Your task to perform on an android device: toggle airplane mode Image 0: 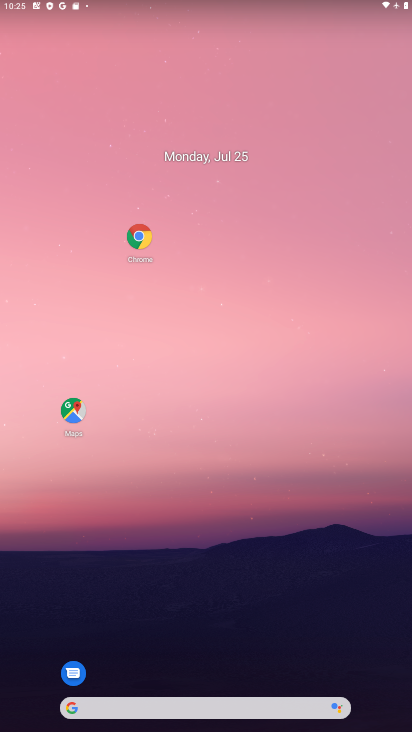
Step 0: drag from (270, 643) to (261, 85)
Your task to perform on an android device: toggle airplane mode Image 1: 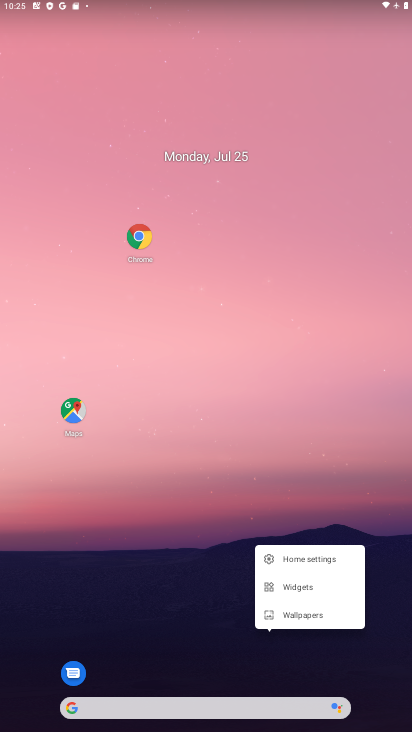
Step 1: click (220, 597)
Your task to perform on an android device: toggle airplane mode Image 2: 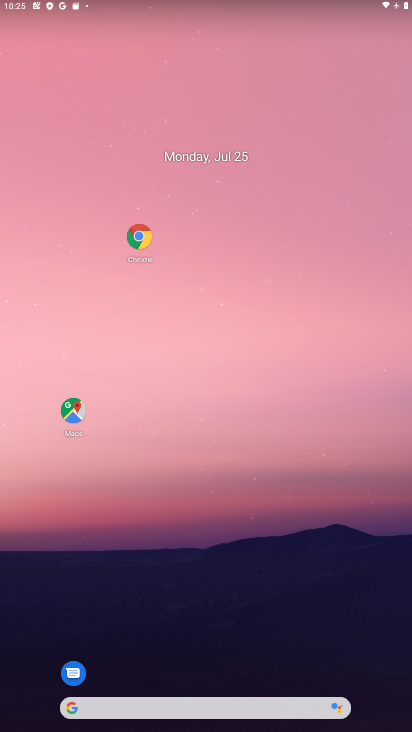
Step 2: drag from (222, 649) to (280, 45)
Your task to perform on an android device: toggle airplane mode Image 3: 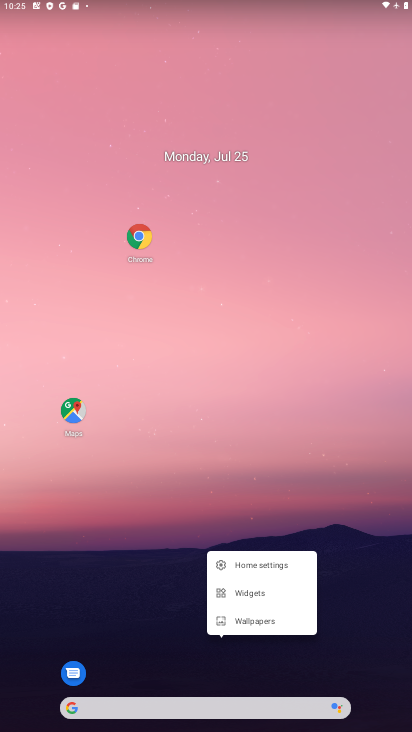
Step 3: click (310, 337)
Your task to perform on an android device: toggle airplane mode Image 4: 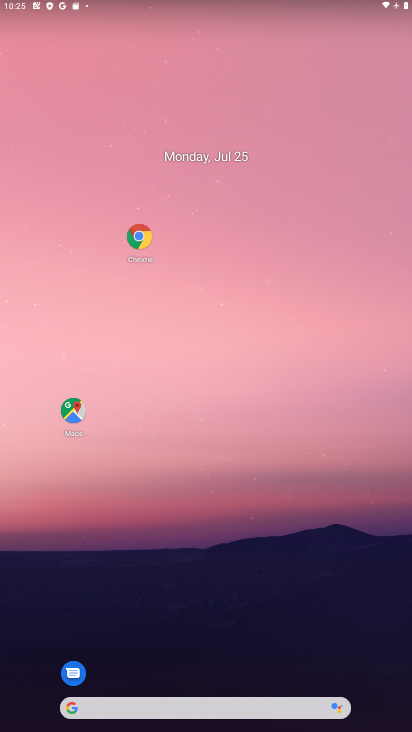
Step 4: drag from (251, 666) to (287, 87)
Your task to perform on an android device: toggle airplane mode Image 5: 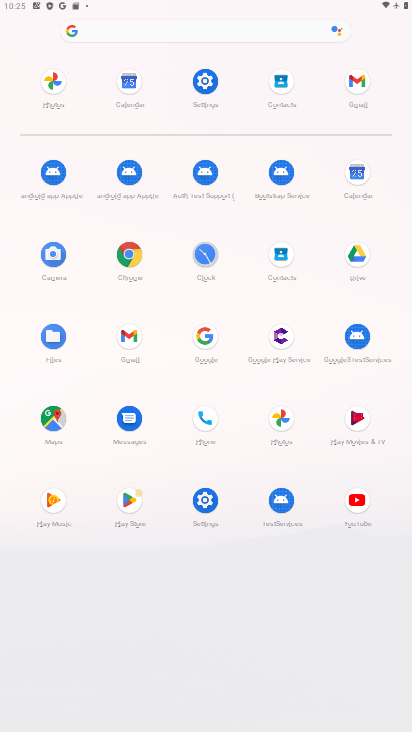
Step 5: click (221, 95)
Your task to perform on an android device: toggle airplane mode Image 6: 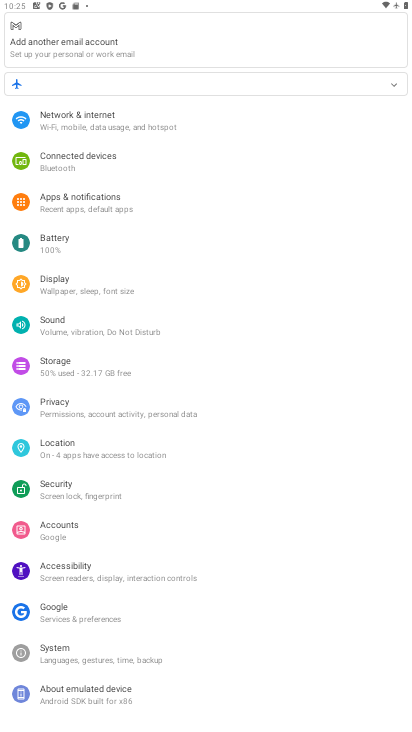
Step 6: click (72, 123)
Your task to perform on an android device: toggle airplane mode Image 7: 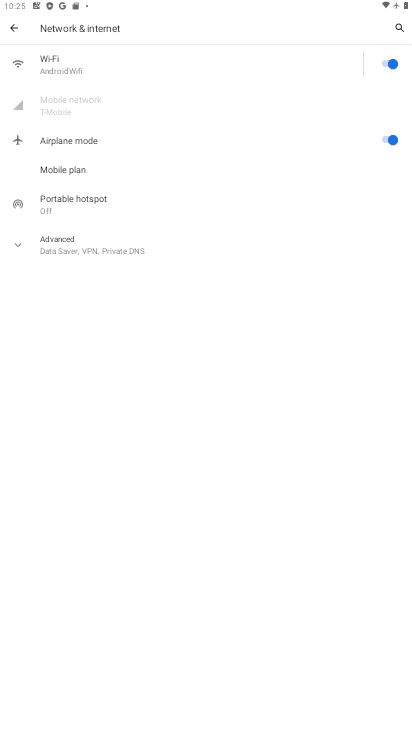
Step 7: task complete